Your task to perform on an android device: toggle notifications settings in the gmail app Image 0: 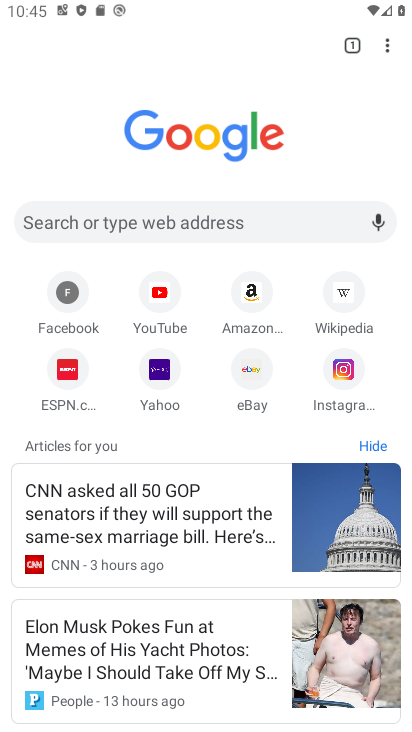
Step 0: press home button
Your task to perform on an android device: toggle notifications settings in the gmail app Image 1: 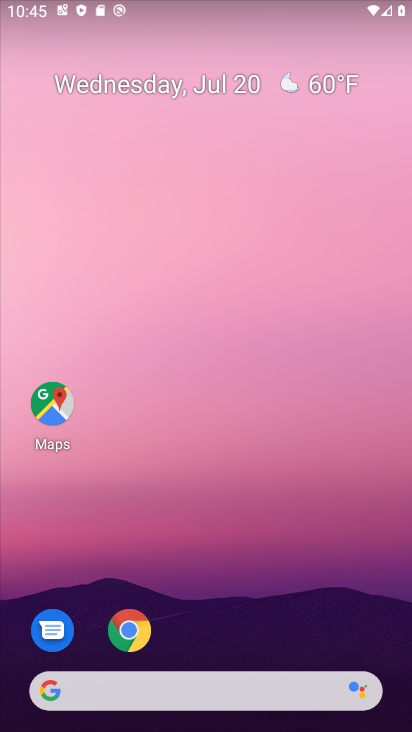
Step 1: drag from (204, 722) to (208, 83)
Your task to perform on an android device: toggle notifications settings in the gmail app Image 2: 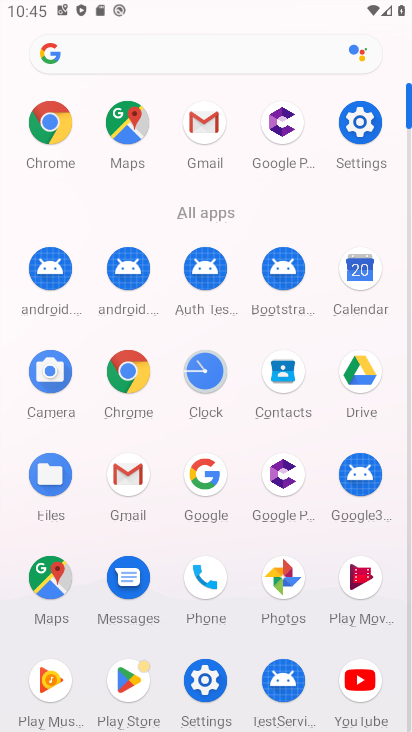
Step 2: click (203, 129)
Your task to perform on an android device: toggle notifications settings in the gmail app Image 3: 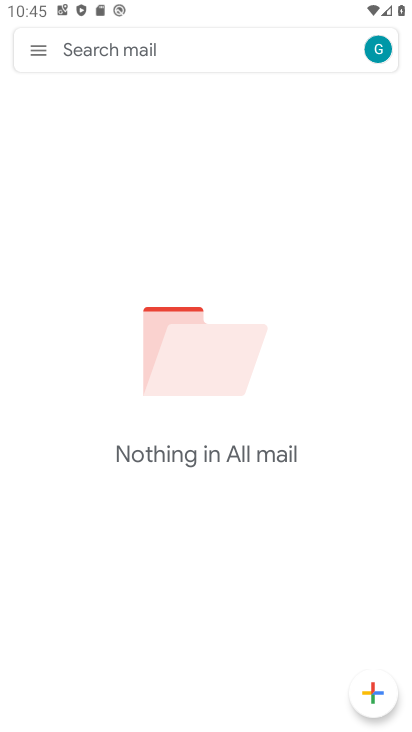
Step 3: press home button
Your task to perform on an android device: toggle notifications settings in the gmail app Image 4: 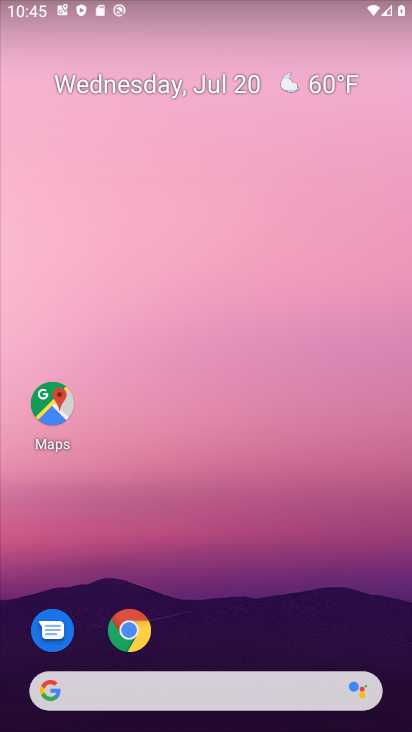
Step 4: drag from (225, 634) to (227, 257)
Your task to perform on an android device: toggle notifications settings in the gmail app Image 5: 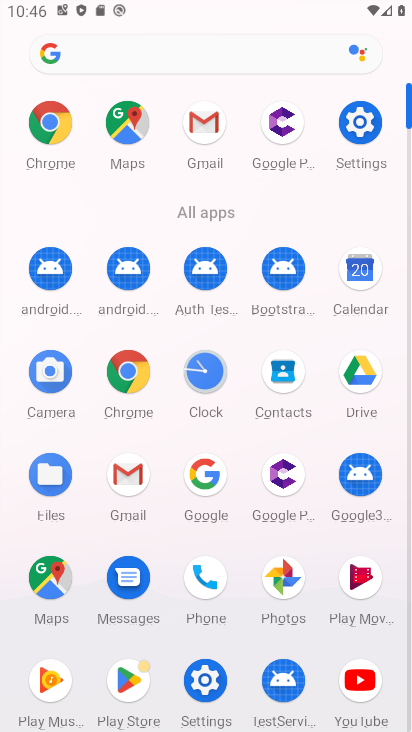
Step 5: click (137, 488)
Your task to perform on an android device: toggle notifications settings in the gmail app Image 6: 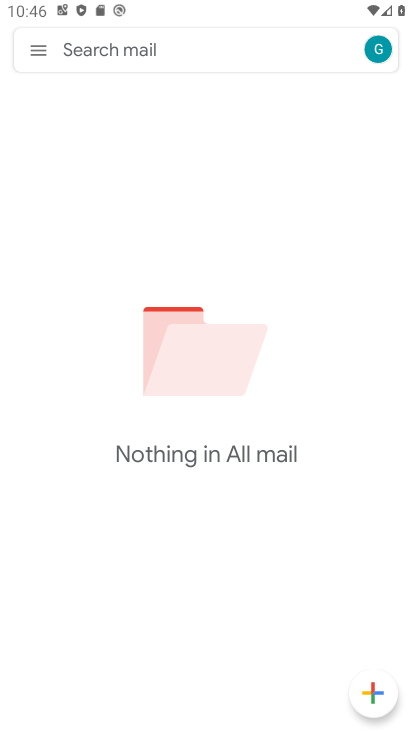
Step 6: click (36, 57)
Your task to perform on an android device: toggle notifications settings in the gmail app Image 7: 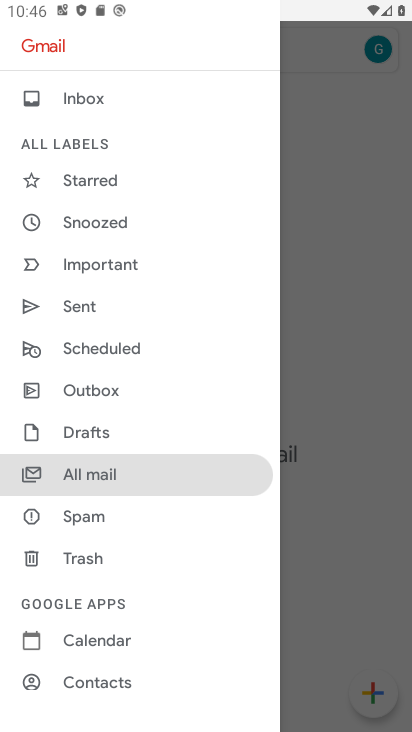
Step 7: drag from (117, 648) to (115, 387)
Your task to perform on an android device: toggle notifications settings in the gmail app Image 8: 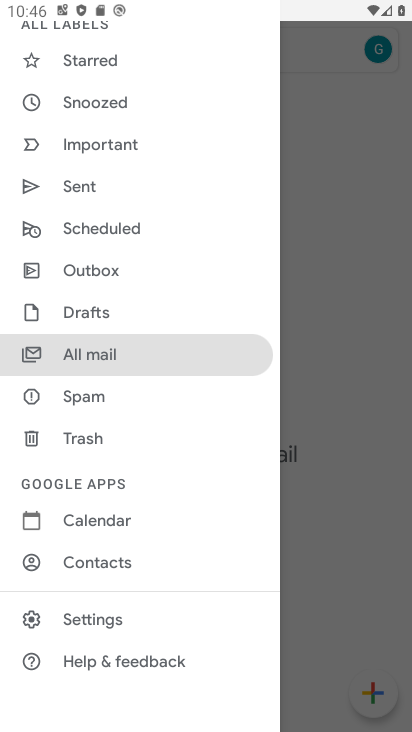
Step 8: click (88, 618)
Your task to perform on an android device: toggle notifications settings in the gmail app Image 9: 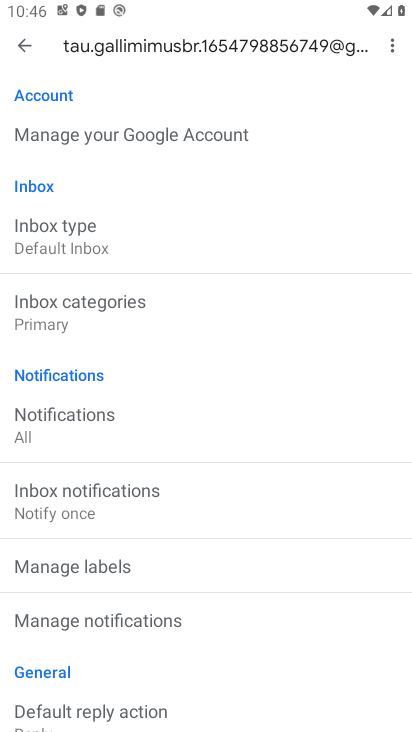
Step 9: click (49, 423)
Your task to perform on an android device: toggle notifications settings in the gmail app Image 10: 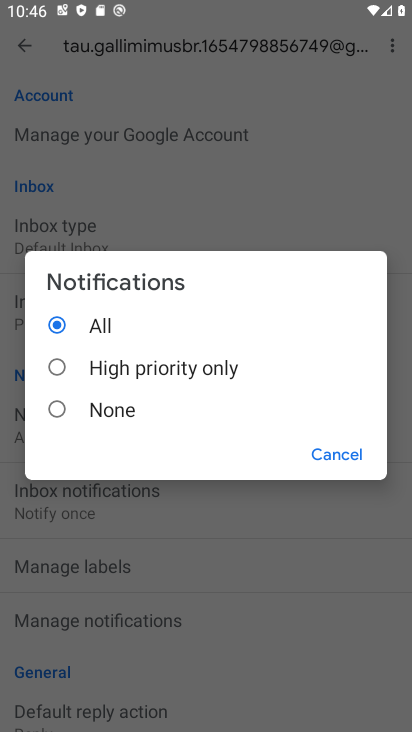
Step 10: click (61, 407)
Your task to perform on an android device: toggle notifications settings in the gmail app Image 11: 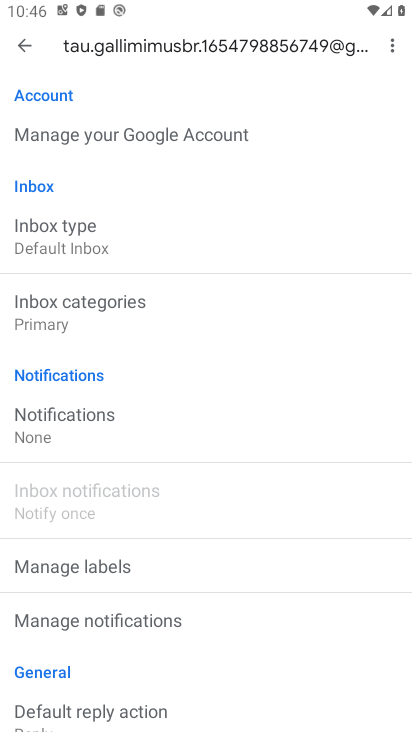
Step 11: task complete